Your task to perform on an android device: change the clock display to show seconds Image 0: 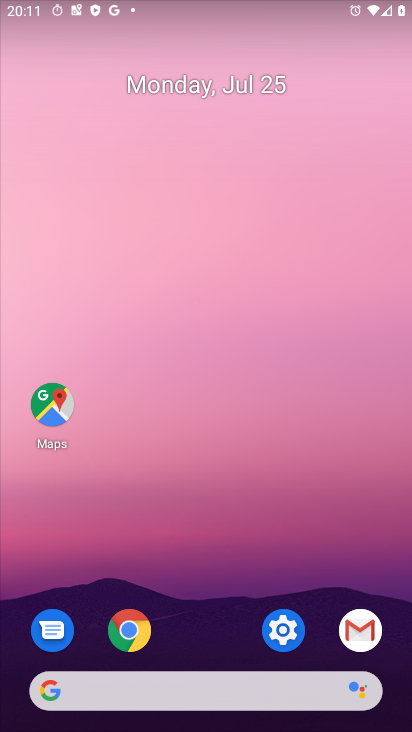
Step 0: click (284, 645)
Your task to perform on an android device: change the clock display to show seconds Image 1: 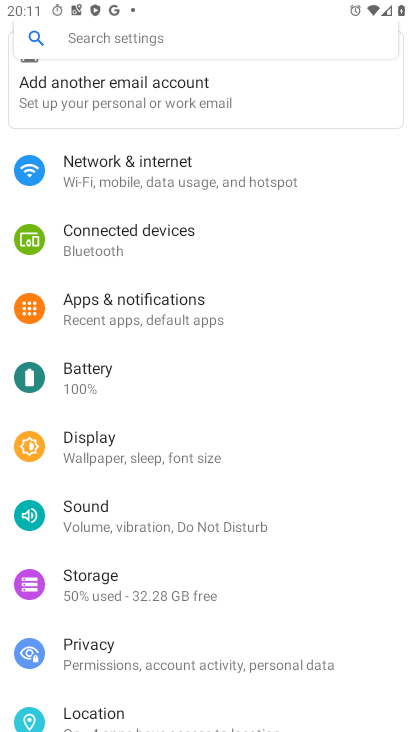
Step 1: click (103, 449)
Your task to perform on an android device: change the clock display to show seconds Image 2: 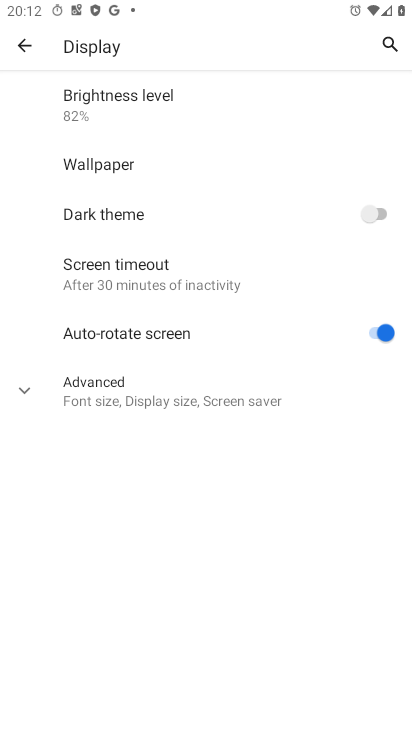
Step 2: click (112, 475)
Your task to perform on an android device: change the clock display to show seconds Image 3: 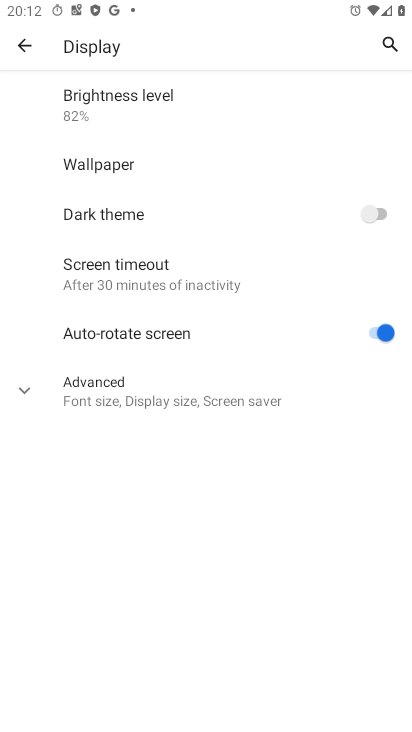
Step 3: task complete